Your task to perform on an android device: Open wifi settings Image 0: 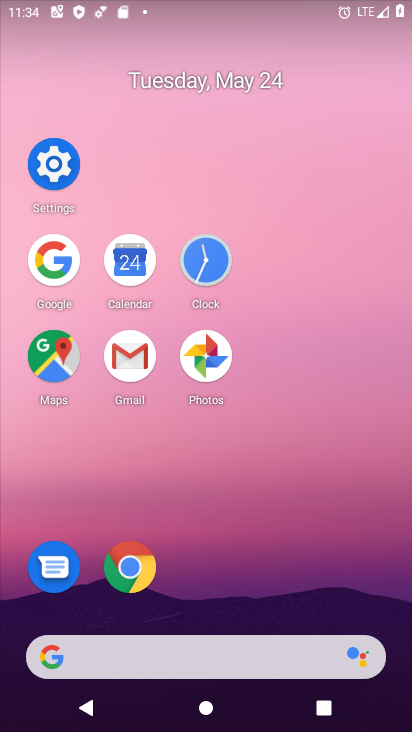
Step 0: click (40, 182)
Your task to perform on an android device: Open wifi settings Image 1: 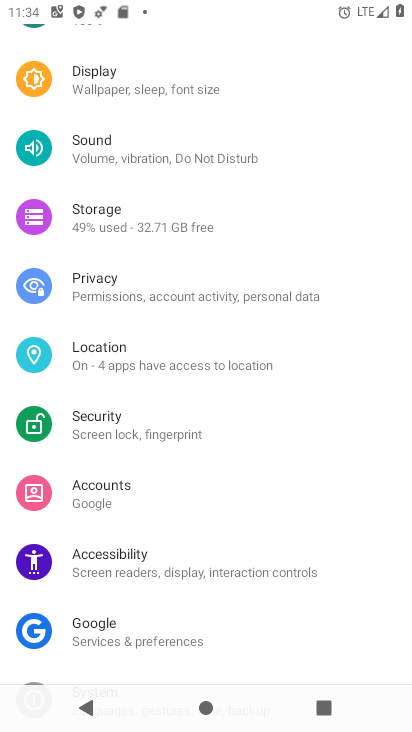
Step 1: drag from (323, 153) to (290, 610)
Your task to perform on an android device: Open wifi settings Image 2: 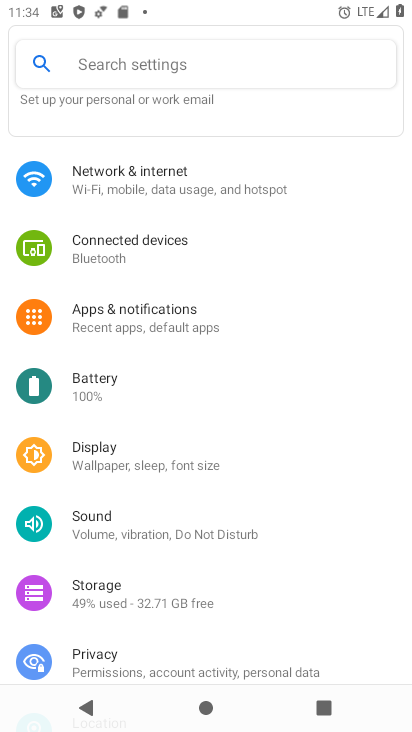
Step 2: click (195, 195)
Your task to perform on an android device: Open wifi settings Image 3: 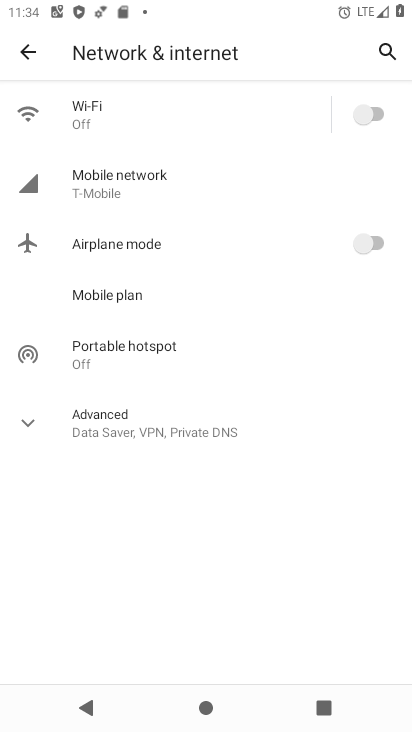
Step 3: click (373, 113)
Your task to perform on an android device: Open wifi settings Image 4: 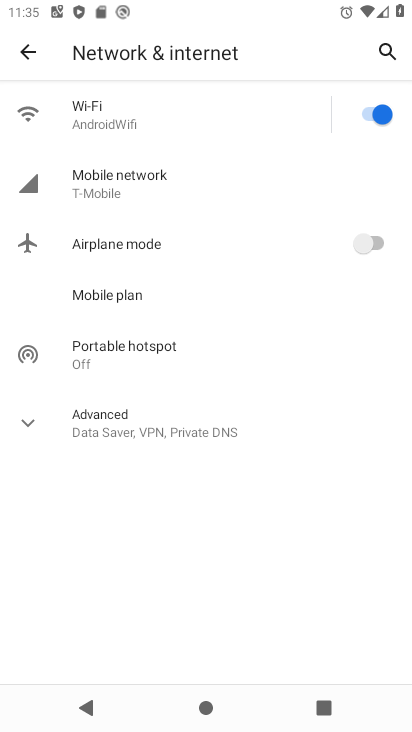
Step 4: click (191, 146)
Your task to perform on an android device: Open wifi settings Image 5: 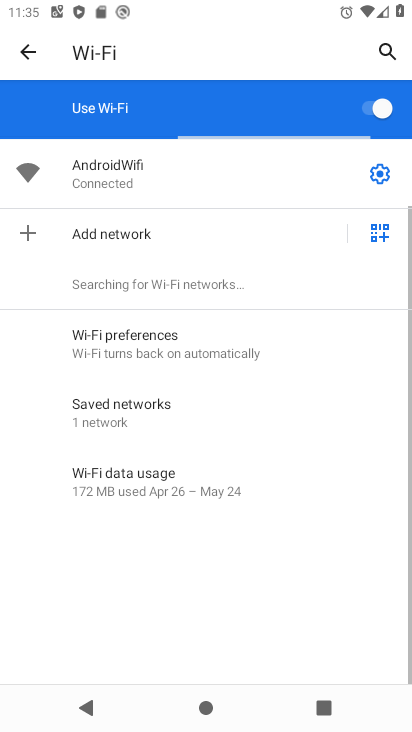
Step 5: click (382, 171)
Your task to perform on an android device: Open wifi settings Image 6: 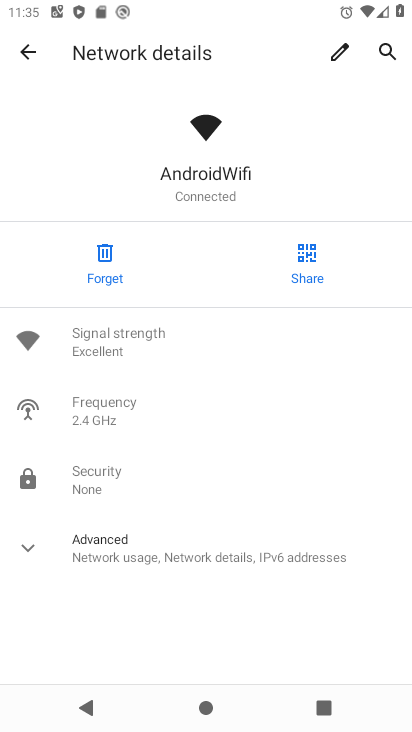
Step 6: task complete